Your task to perform on an android device: open a new tab in the chrome app Image 0: 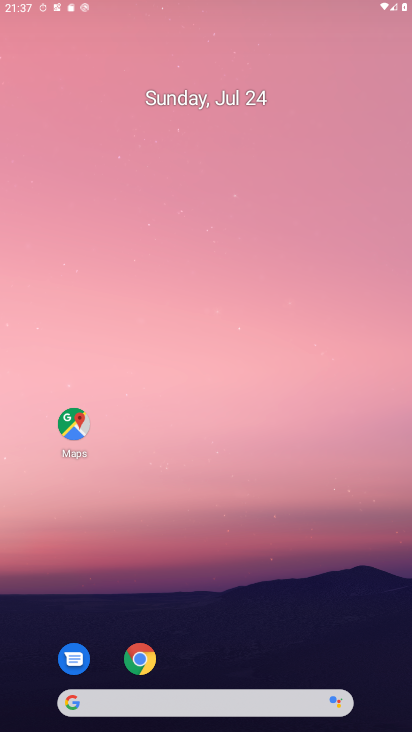
Step 0: click (404, 479)
Your task to perform on an android device: open a new tab in the chrome app Image 1: 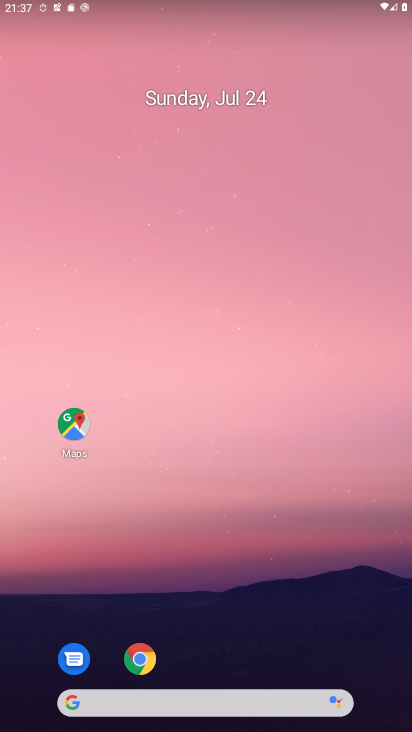
Step 1: click (138, 652)
Your task to perform on an android device: open a new tab in the chrome app Image 2: 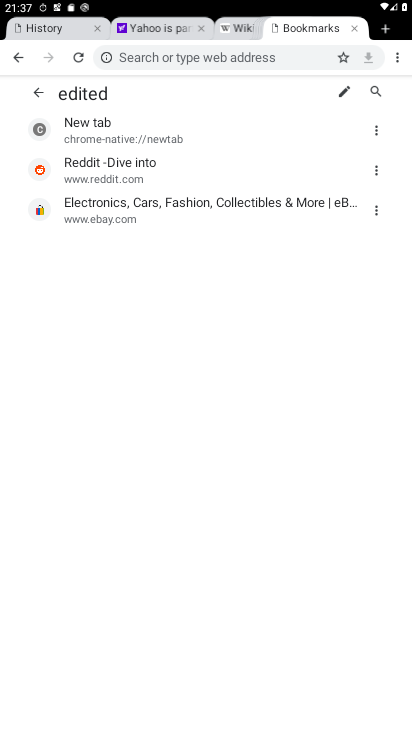
Step 2: click (398, 61)
Your task to perform on an android device: open a new tab in the chrome app Image 3: 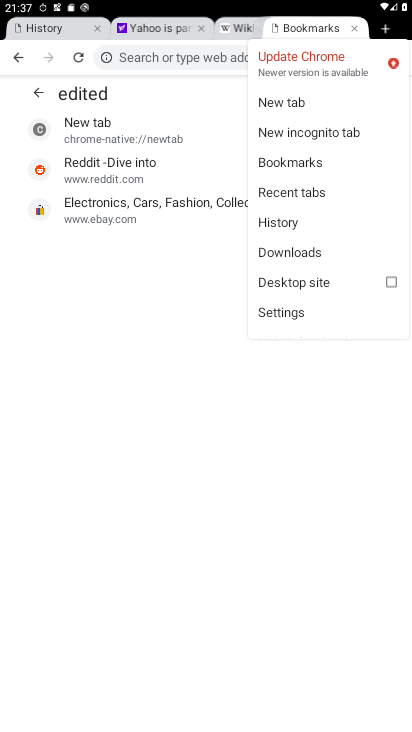
Step 3: click (281, 104)
Your task to perform on an android device: open a new tab in the chrome app Image 4: 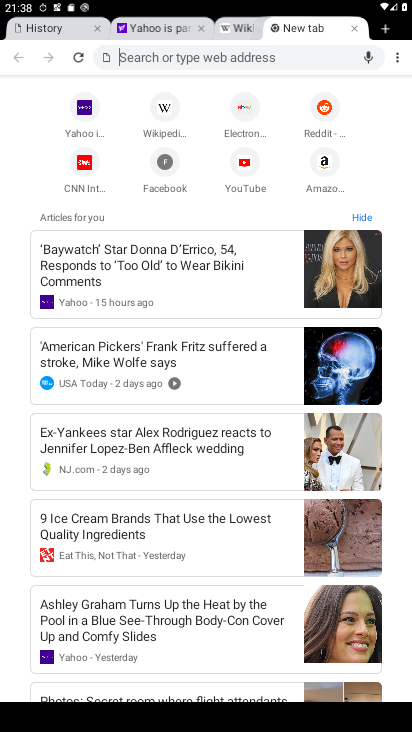
Step 4: task complete